Your task to perform on an android device: stop showing notifications on the lock screen Image 0: 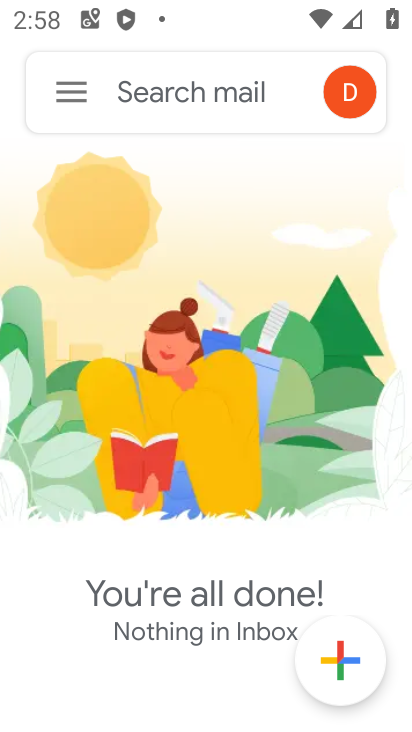
Step 0: press home button
Your task to perform on an android device: stop showing notifications on the lock screen Image 1: 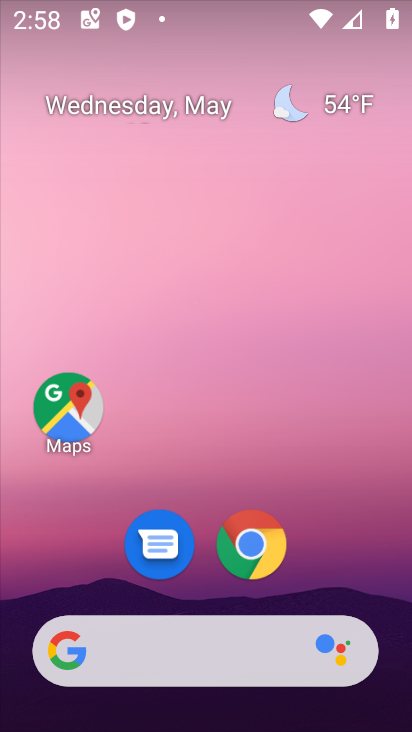
Step 1: drag from (355, 557) to (347, 162)
Your task to perform on an android device: stop showing notifications on the lock screen Image 2: 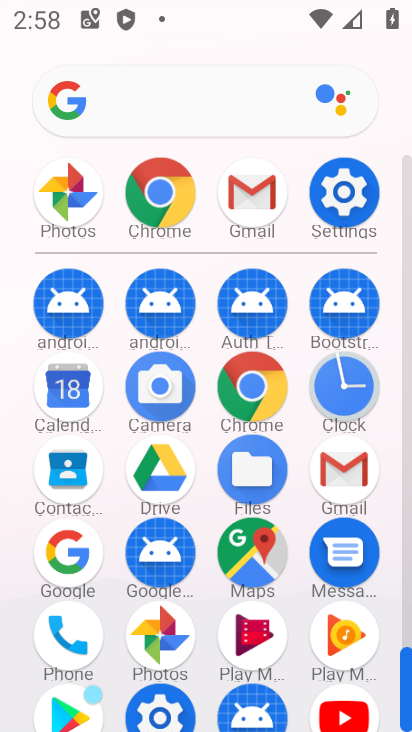
Step 2: click (345, 170)
Your task to perform on an android device: stop showing notifications on the lock screen Image 3: 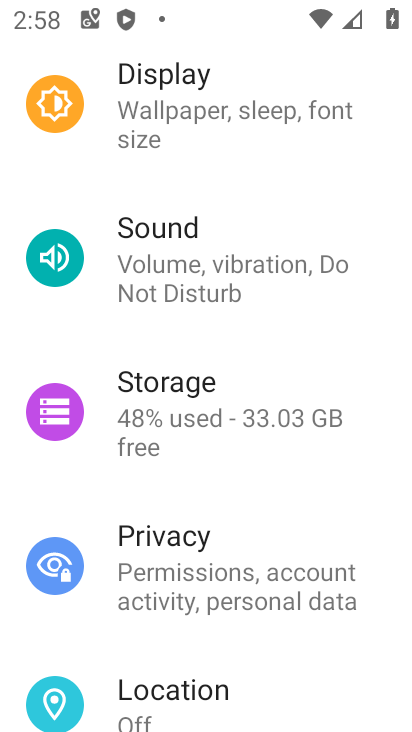
Step 3: drag from (241, 527) to (326, 206)
Your task to perform on an android device: stop showing notifications on the lock screen Image 4: 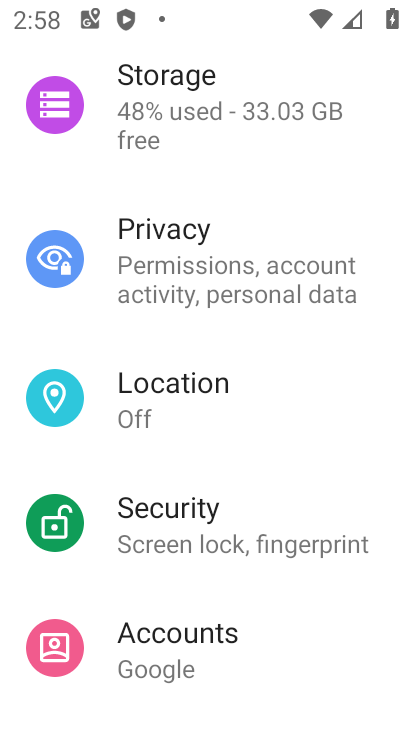
Step 4: click (255, 430)
Your task to perform on an android device: stop showing notifications on the lock screen Image 5: 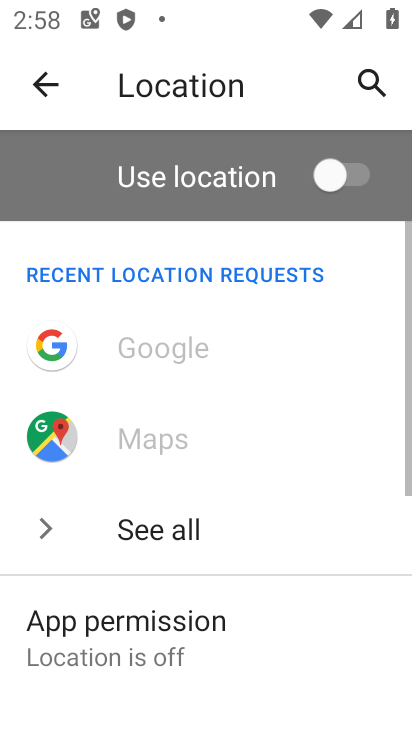
Step 5: drag from (224, 616) to (290, 362)
Your task to perform on an android device: stop showing notifications on the lock screen Image 6: 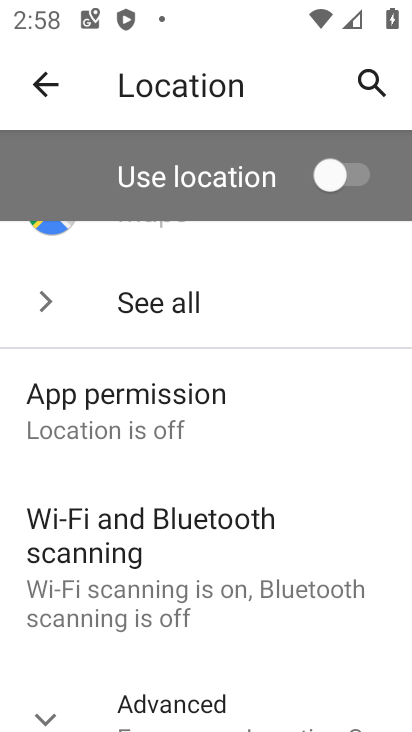
Step 6: click (178, 676)
Your task to perform on an android device: stop showing notifications on the lock screen Image 7: 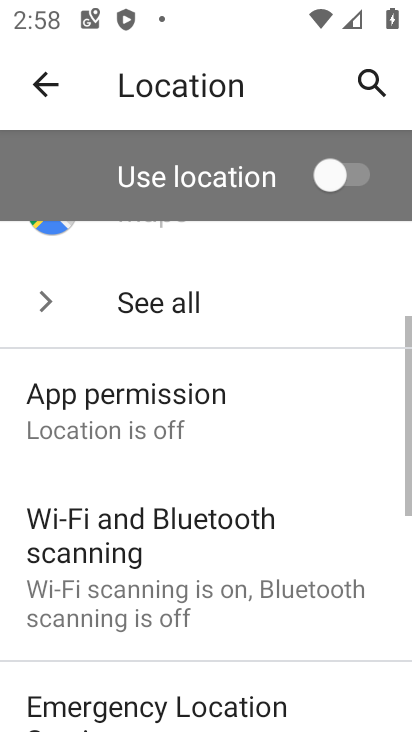
Step 7: drag from (286, 650) to (346, 273)
Your task to perform on an android device: stop showing notifications on the lock screen Image 8: 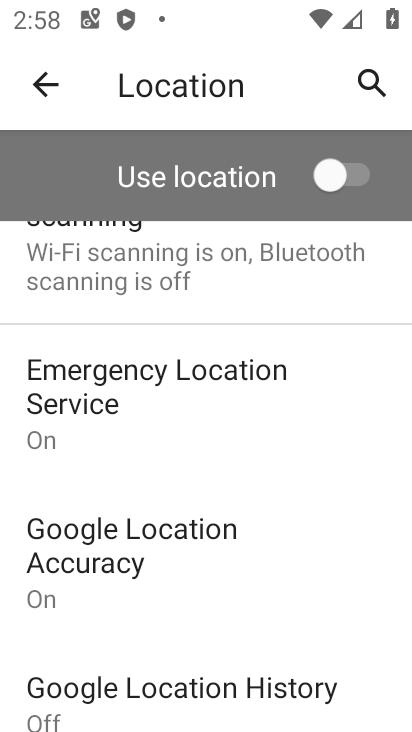
Step 8: drag from (214, 345) to (214, 688)
Your task to perform on an android device: stop showing notifications on the lock screen Image 9: 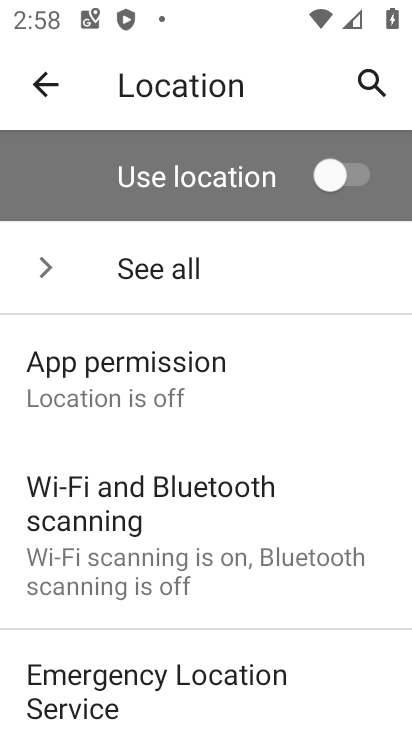
Step 9: click (216, 416)
Your task to perform on an android device: stop showing notifications on the lock screen Image 10: 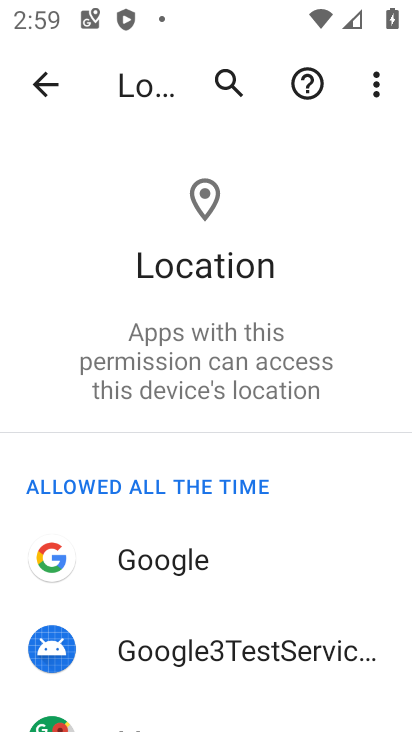
Step 10: click (28, 101)
Your task to perform on an android device: stop showing notifications on the lock screen Image 11: 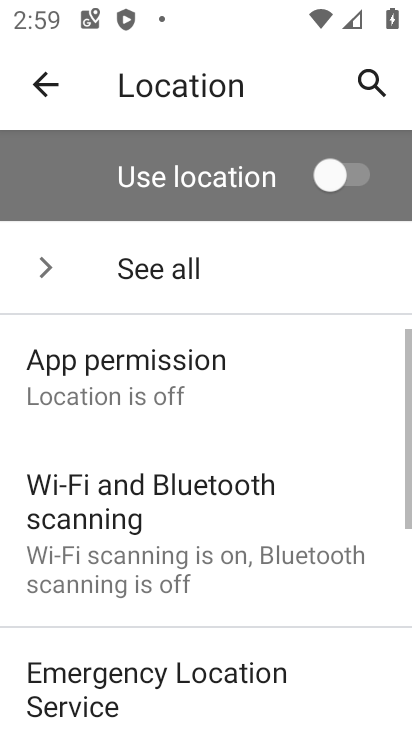
Step 11: drag from (28, 101) to (89, 97)
Your task to perform on an android device: stop showing notifications on the lock screen Image 12: 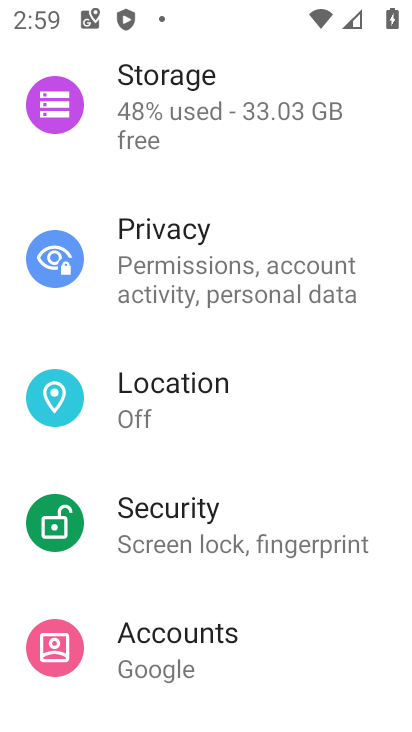
Step 12: drag from (159, 344) to (159, 611)
Your task to perform on an android device: stop showing notifications on the lock screen Image 13: 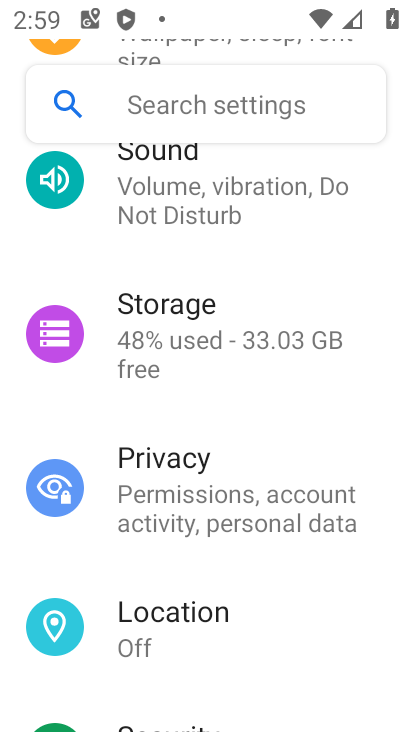
Step 13: drag from (228, 199) to (225, 606)
Your task to perform on an android device: stop showing notifications on the lock screen Image 14: 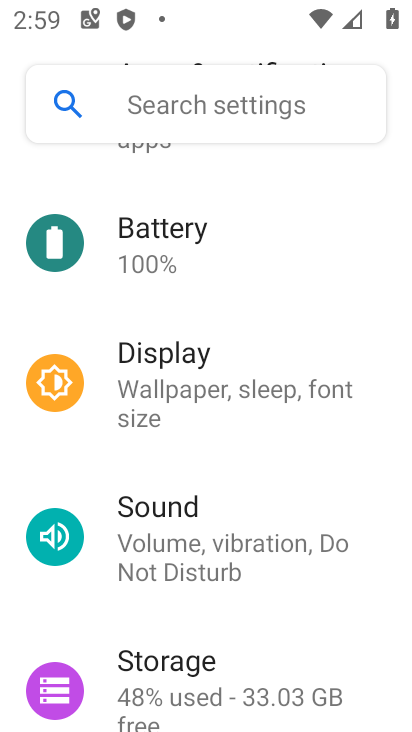
Step 14: drag from (235, 272) to (241, 477)
Your task to perform on an android device: stop showing notifications on the lock screen Image 15: 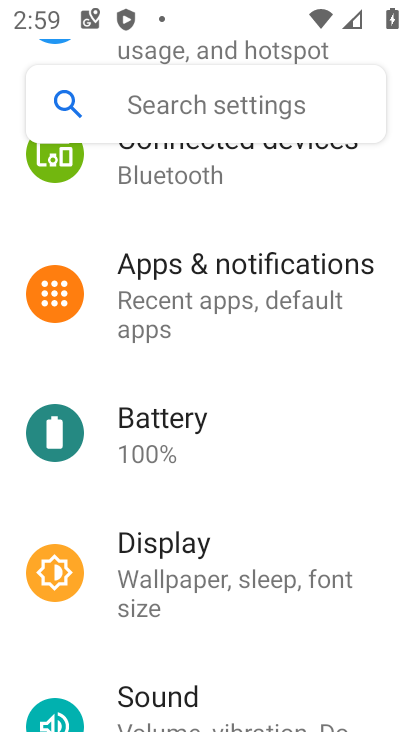
Step 15: click (251, 277)
Your task to perform on an android device: stop showing notifications on the lock screen Image 16: 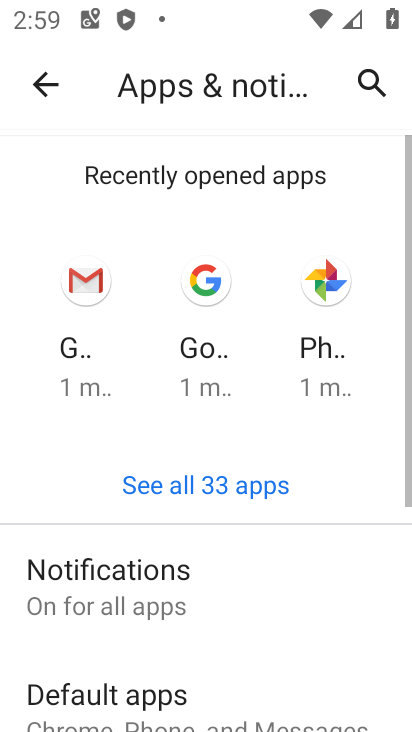
Step 16: drag from (213, 566) to (249, 293)
Your task to perform on an android device: stop showing notifications on the lock screen Image 17: 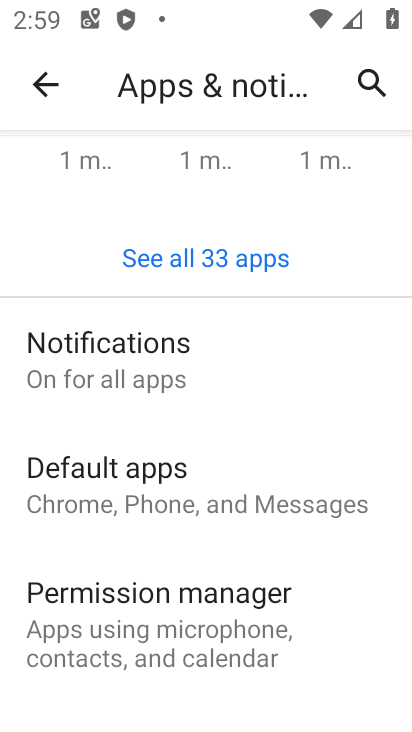
Step 17: drag from (197, 598) to (231, 416)
Your task to perform on an android device: stop showing notifications on the lock screen Image 18: 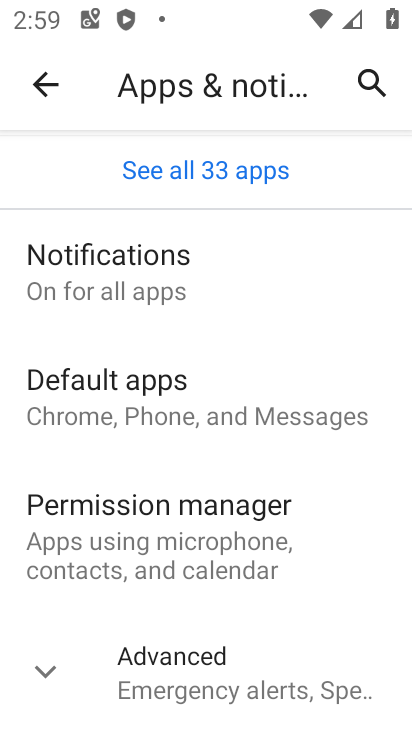
Step 18: click (152, 680)
Your task to perform on an android device: stop showing notifications on the lock screen Image 19: 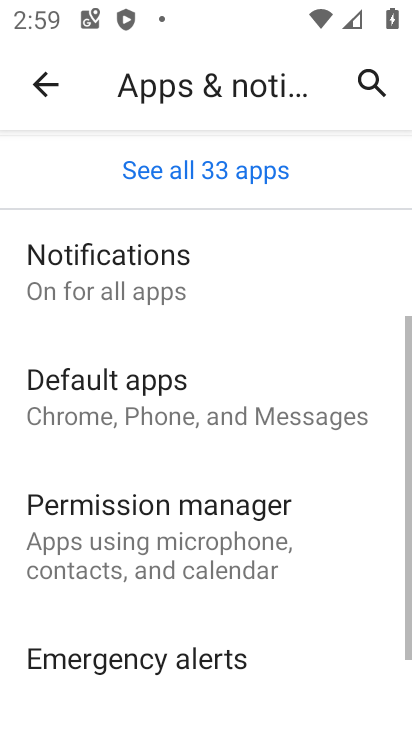
Step 19: drag from (152, 680) to (174, 542)
Your task to perform on an android device: stop showing notifications on the lock screen Image 20: 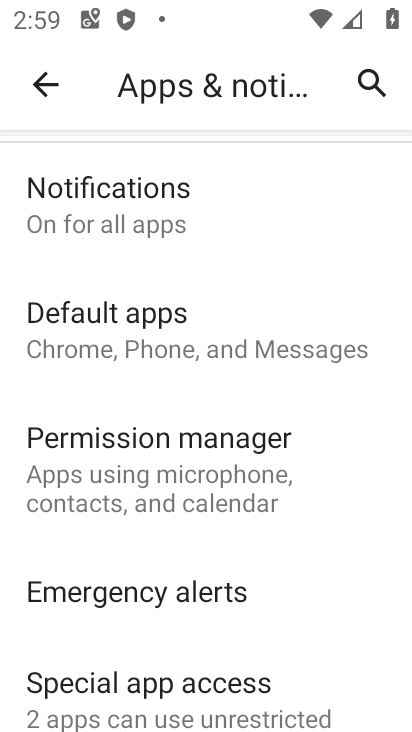
Step 20: click (209, 264)
Your task to perform on an android device: stop showing notifications on the lock screen Image 21: 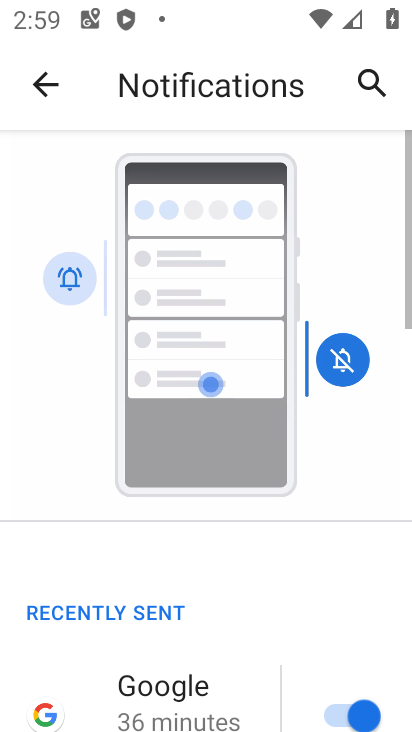
Step 21: drag from (173, 567) to (267, 195)
Your task to perform on an android device: stop showing notifications on the lock screen Image 22: 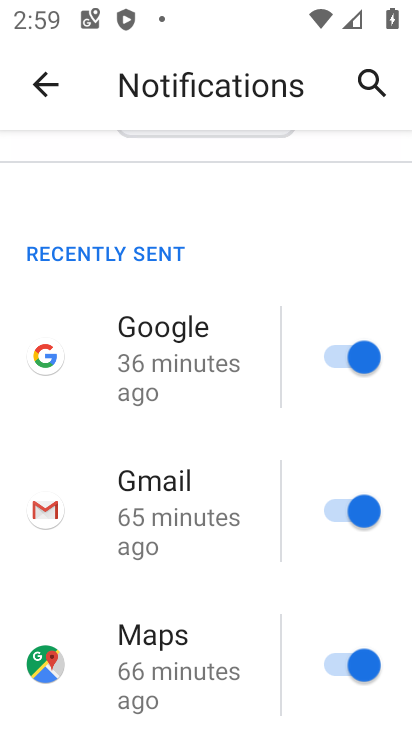
Step 22: drag from (188, 574) to (246, 72)
Your task to perform on an android device: stop showing notifications on the lock screen Image 23: 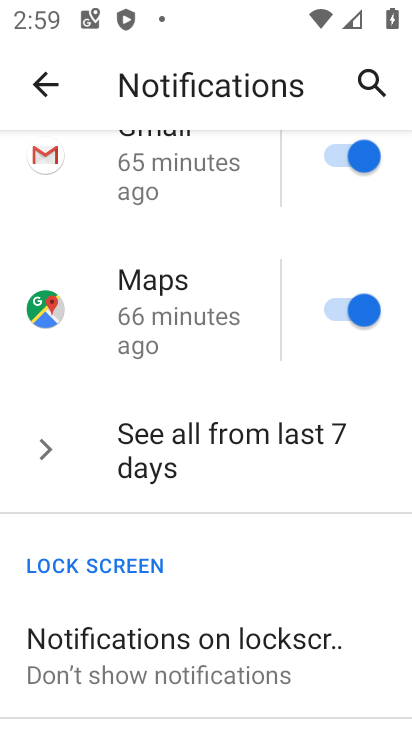
Step 23: click (137, 686)
Your task to perform on an android device: stop showing notifications on the lock screen Image 24: 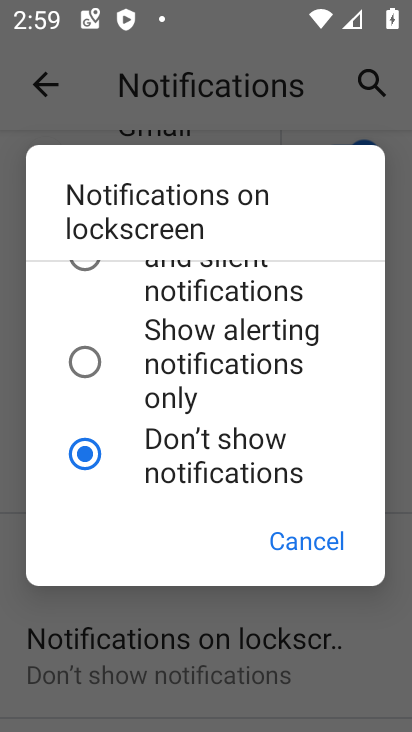
Step 24: task complete